Your task to perform on an android device: change keyboard looks Image 0: 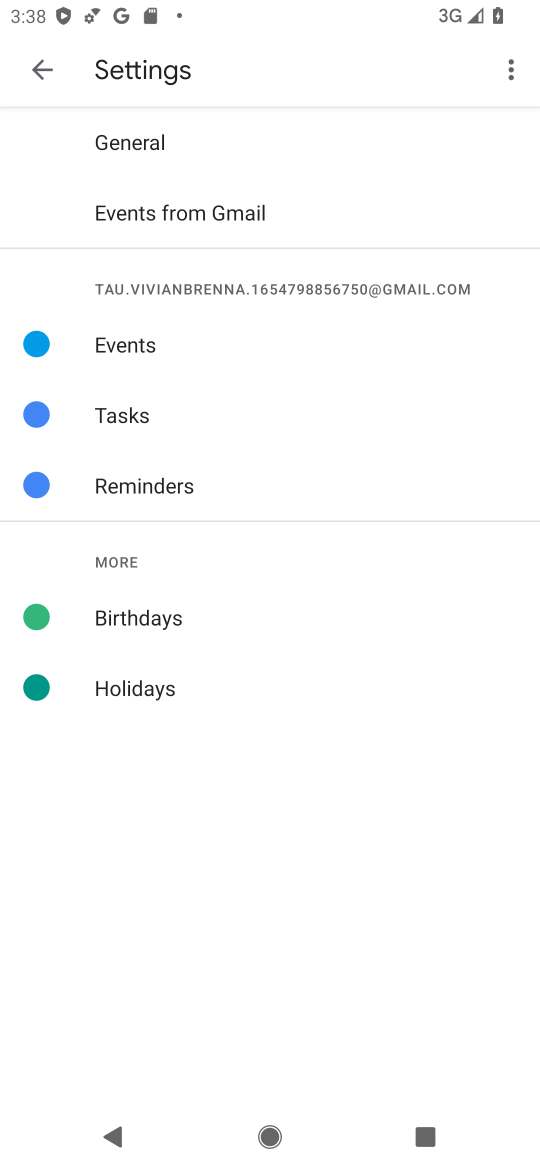
Step 0: press back button
Your task to perform on an android device: change keyboard looks Image 1: 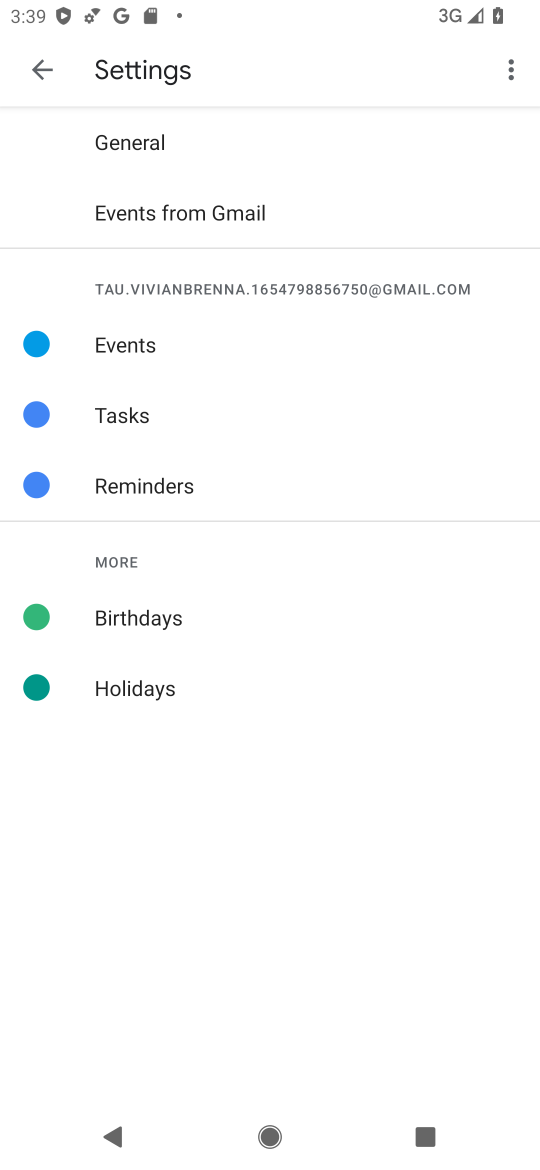
Step 1: press back button
Your task to perform on an android device: change keyboard looks Image 2: 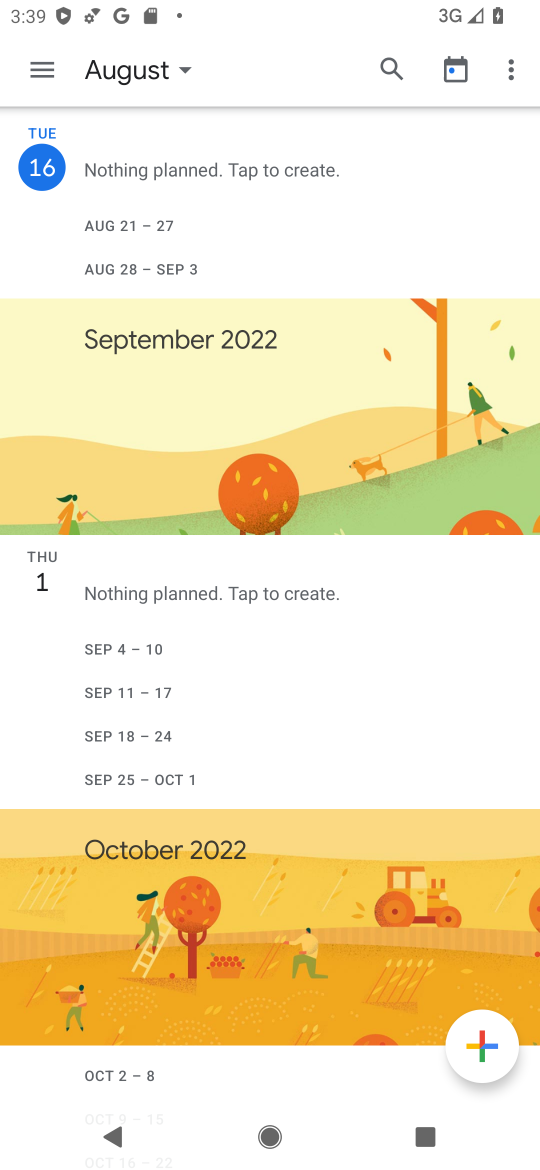
Step 2: press back button
Your task to perform on an android device: change keyboard looks Image 3: 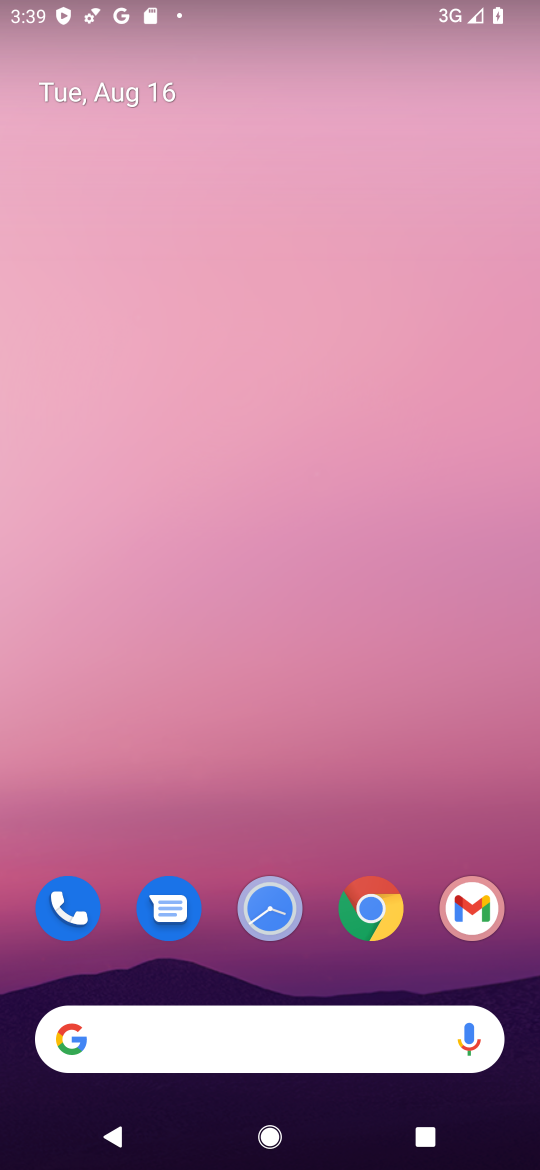
Step 3: drag from (259, 994) to (278, 265)
Your task to perform on an android device: change keyboard looks Image 4: 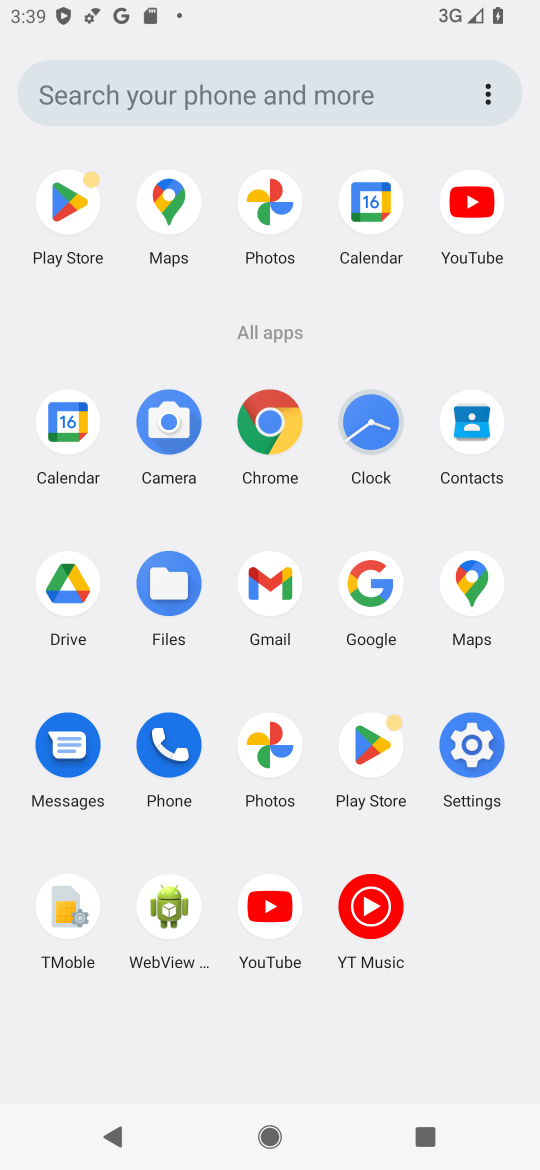
Step 4: click (474, 768)
Your task to perform on an android device: change keyboard looks Image 5: 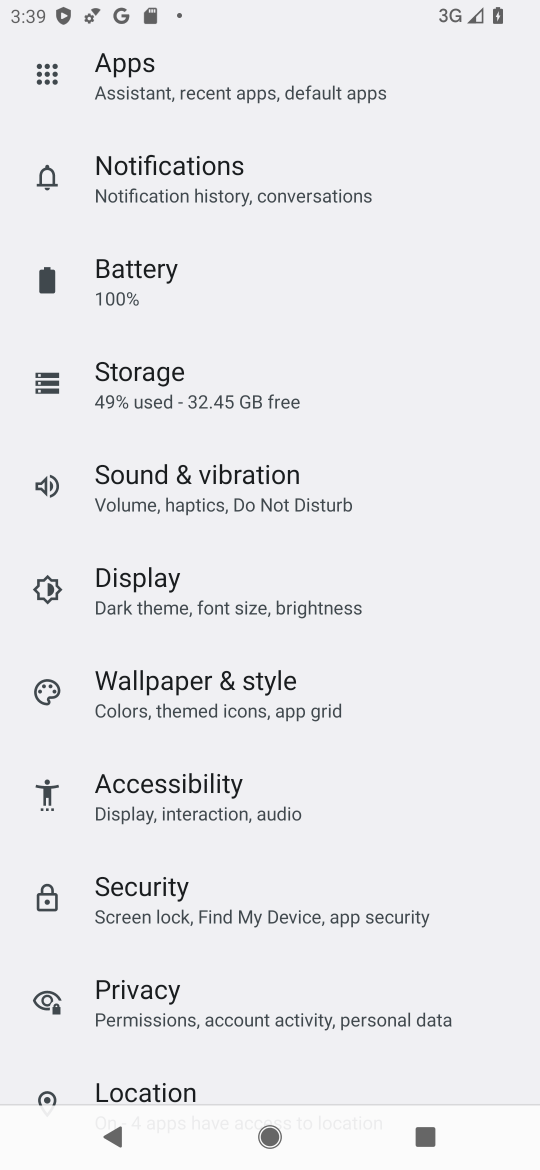
Step 5: drag from (278, 812) to (380, 212)
Your task to perform on an android device: change keyboard looks Image 6: 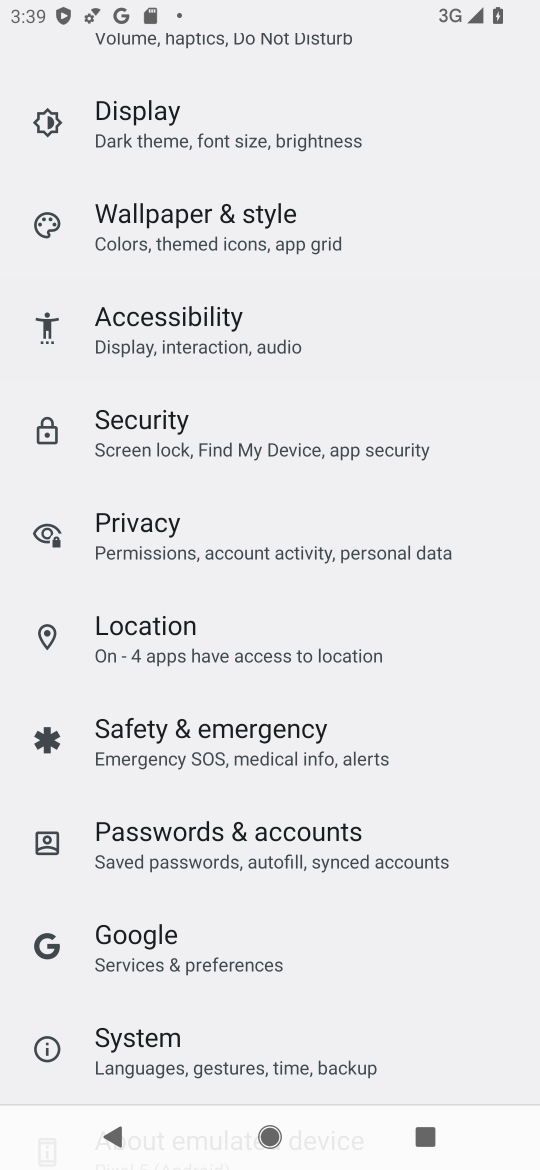
Step 6: drag from (237, 1063) to (308, 326)
Your task to perform on an android device: change keyboard looks Image 7: 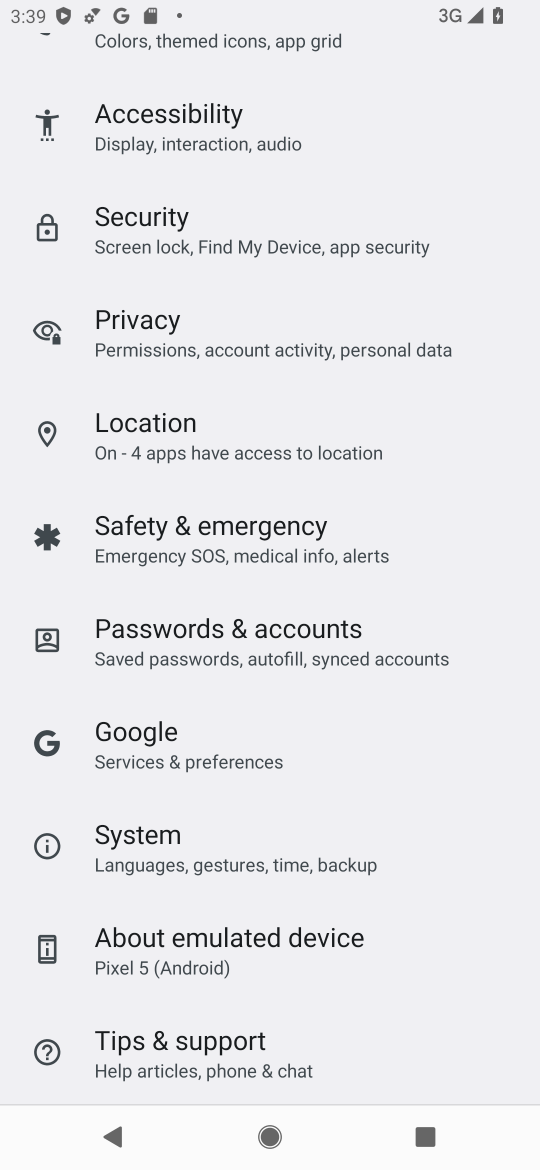
Step 7: click (183, 846)
Your task to perform on an android device: change keyboard looks Image 8: 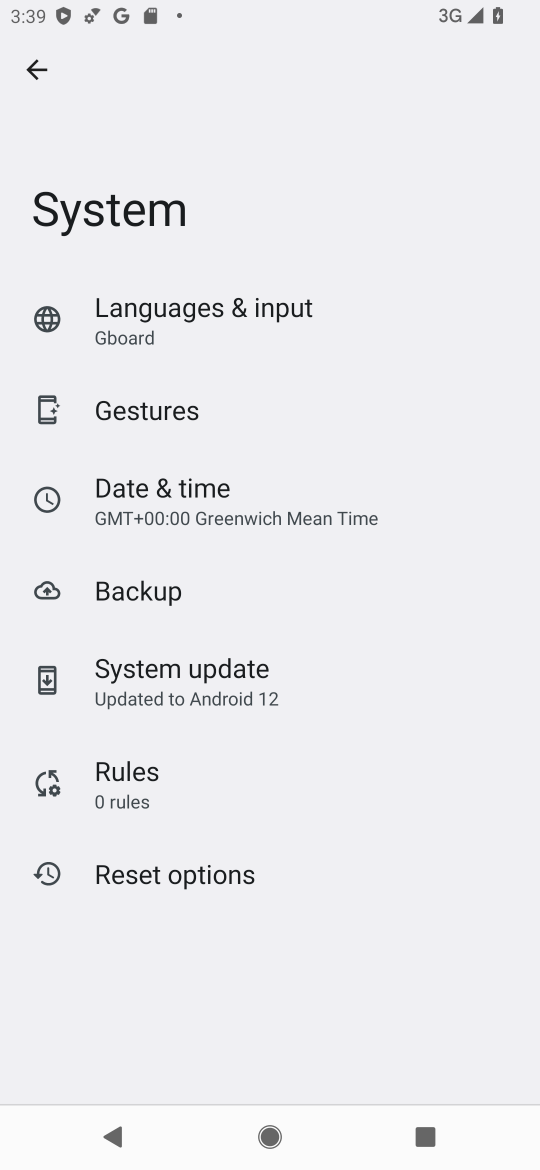
Step 8: click (234, 320)
Your task to perform on an android device: change keyboard looks Image 9: 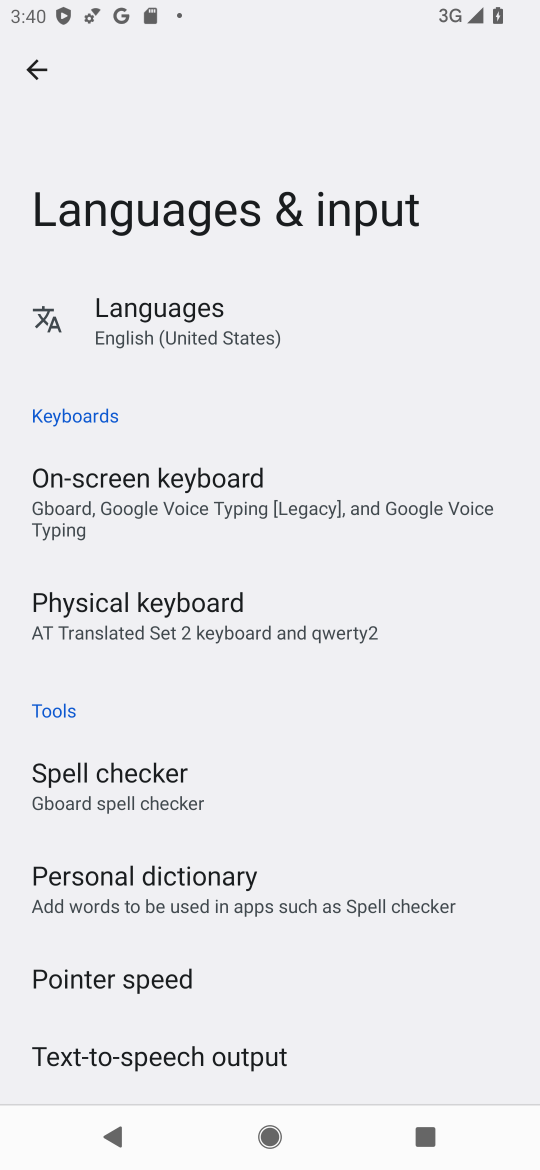
Step 9: click (260, 329)
Your task to perform on an android device: change keyboard looks Image 10: 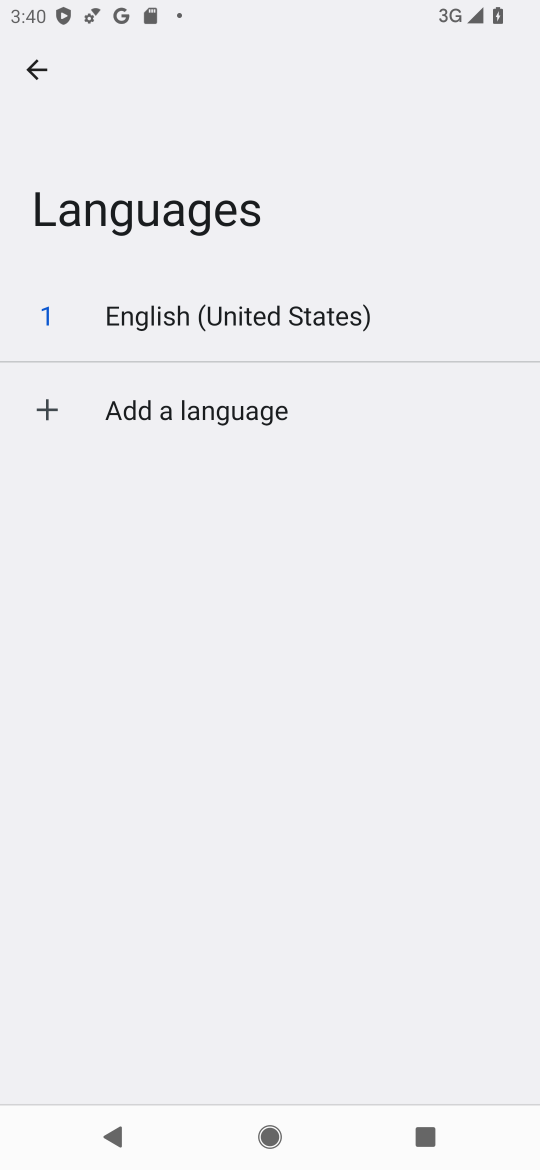
Step 10: click (40, 60)
Your task to perform on an android device: change keyboard looks Image 11: 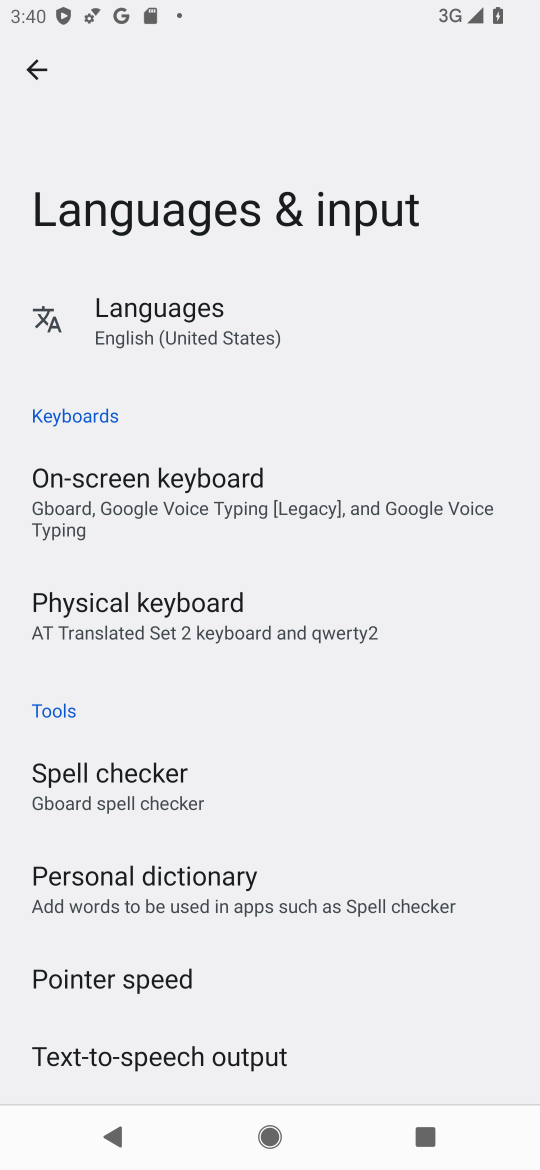
Step 11: drag from (207, 1028) to (293, 349)
Your task to perform on an android device: change keyboard looks Image 12: 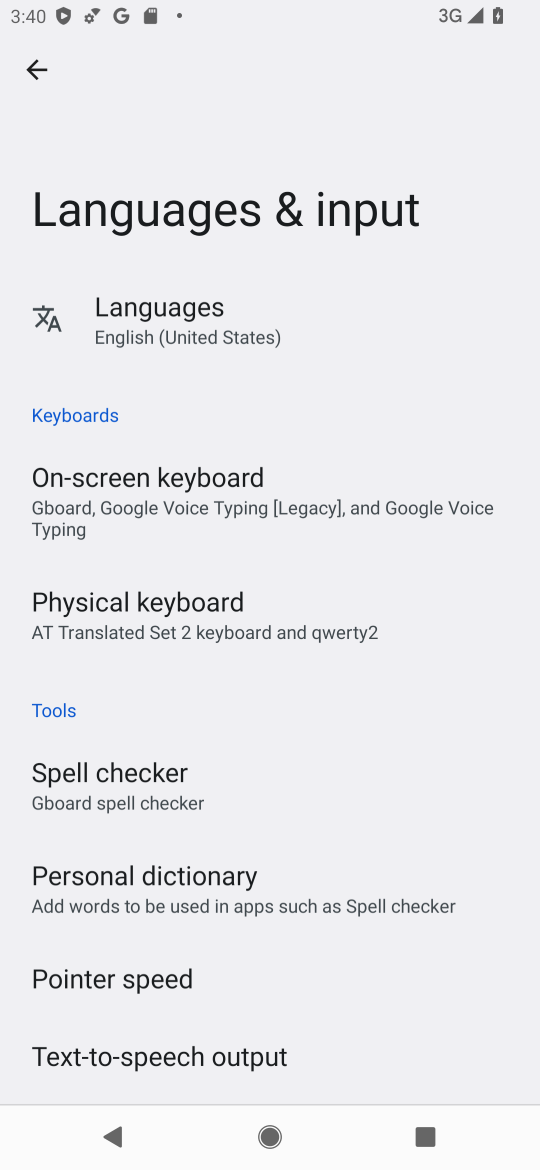
Step 12: click (192, 467)
Your task to perform on an android device: change keyboard looks Image 13: 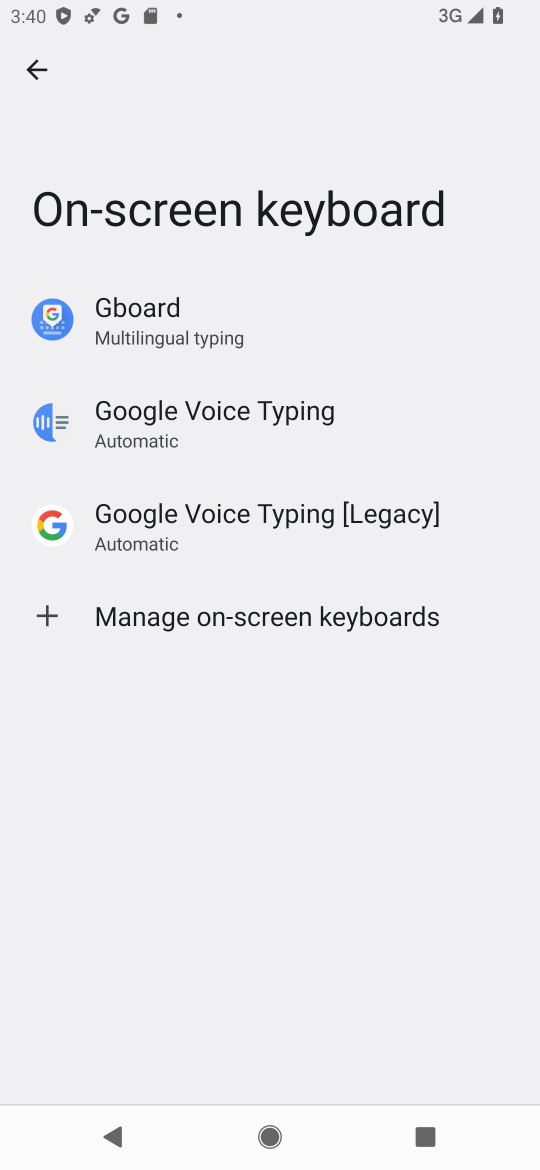
Step 13: click (187, 316)
Your task to perform on an android device: change keyboard looks Image 14: 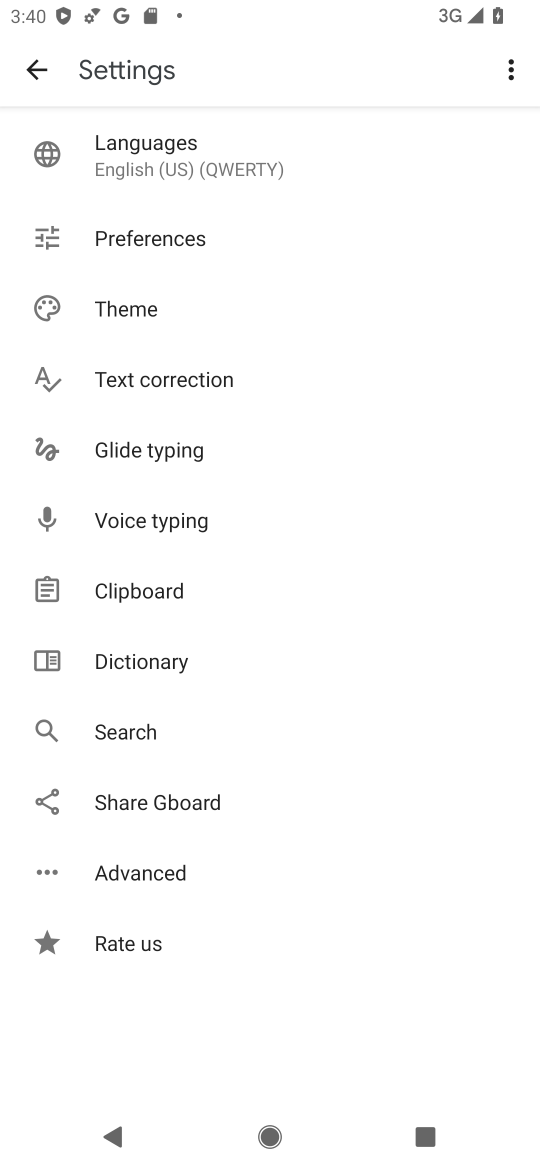
Step 14: click (155, 305)
Your task to perform on an android device: change keyboard looks Image 15: 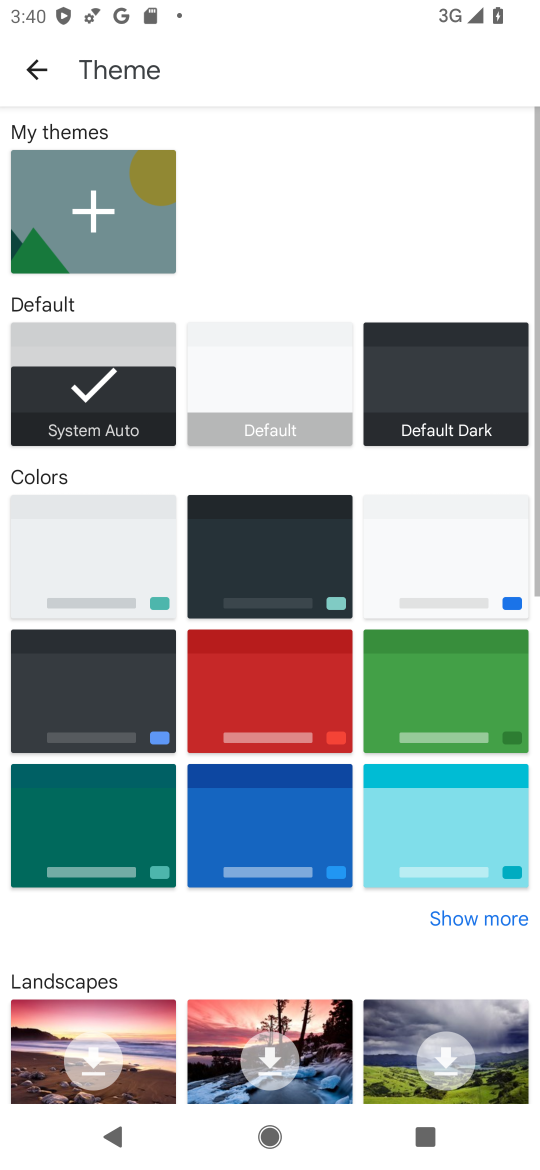
Step 15: click (408, 692)
Your task to perform on an android device: change keyboard looks Image 16: 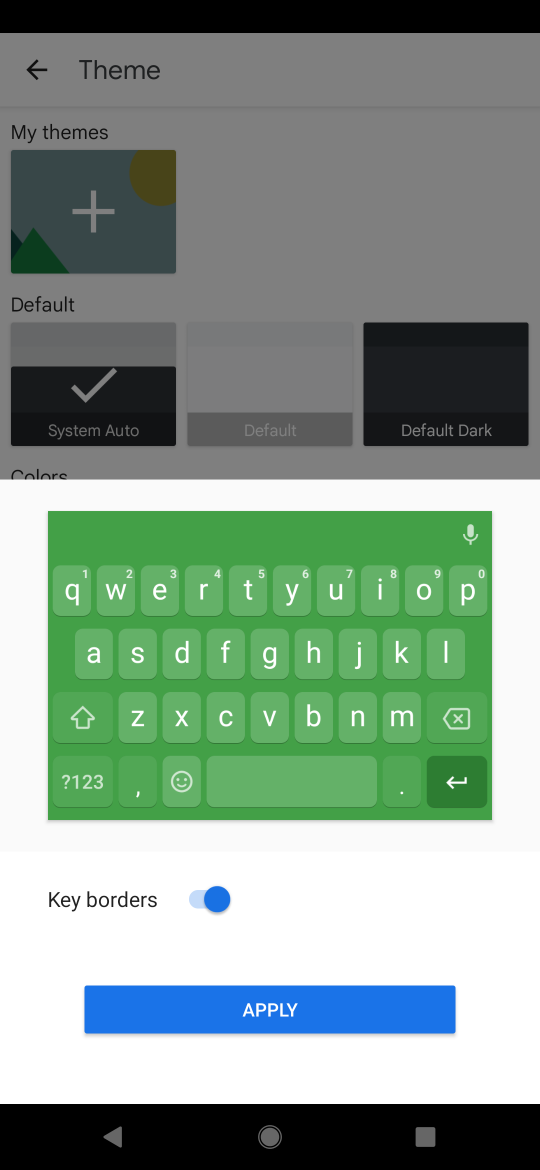
Step 16: click (254, 1005)
Your task to perform on an android device: change keyboard looks Image 17: 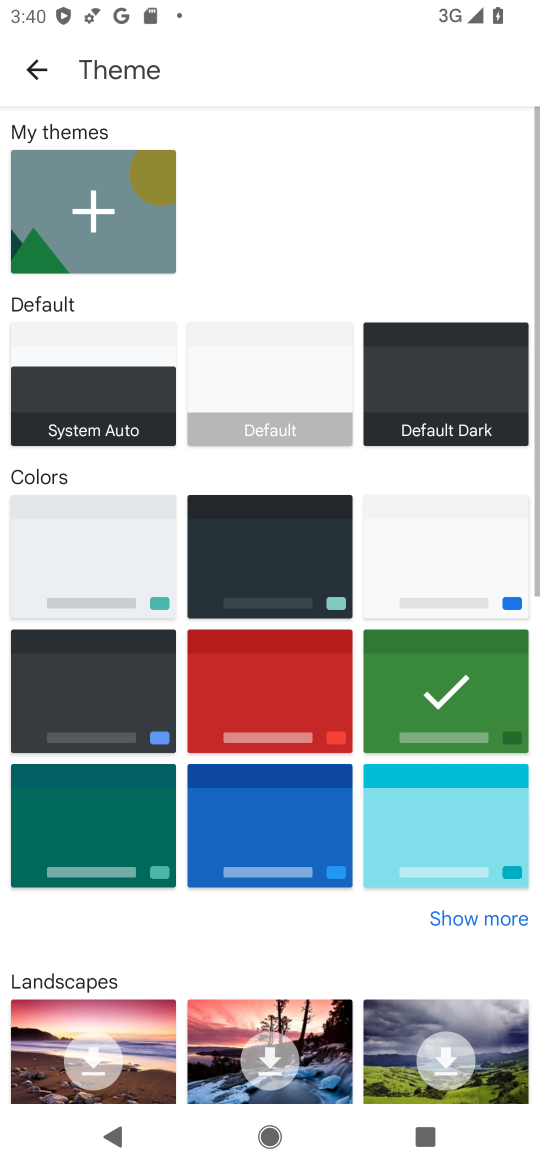
Step 17: task complete